Your task to perform on an android device: turn on priority inbox in the gmail app Image 0: 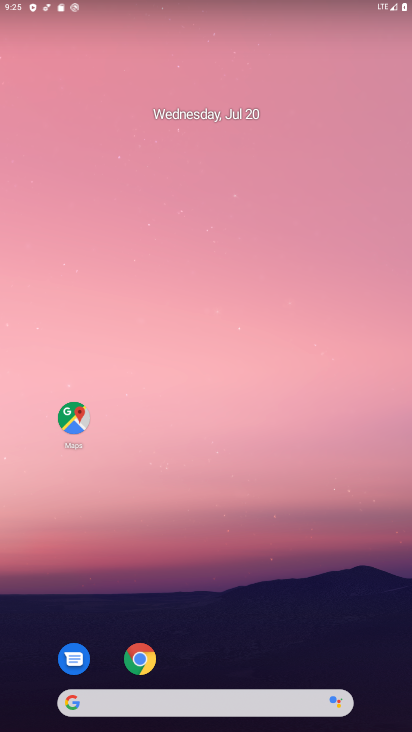
Step 0: drag from (243, 579) to (224, 58)
Your task to perform on an android device: turn on priority inbox in the gmail app Image 1: 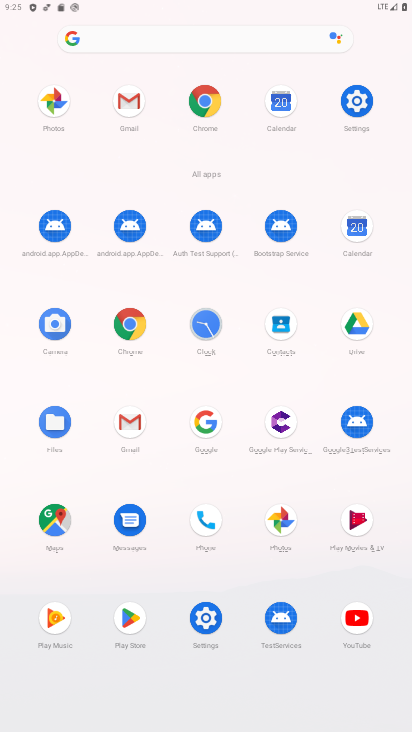
Step 1: click (129, 422)
Your task to perform on an android device: turn on priority inbox in the gmail app Image 2: 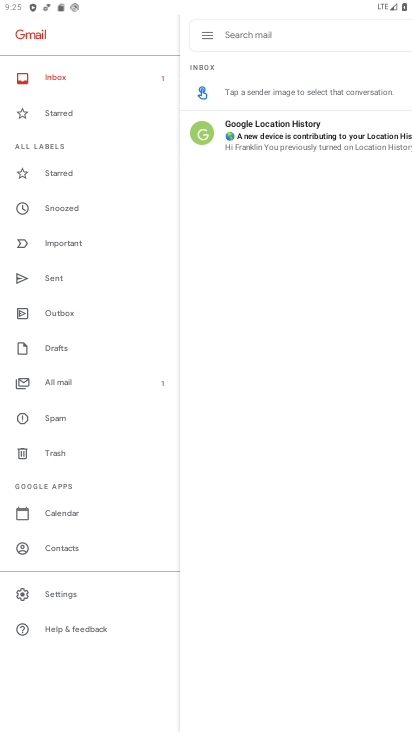
Step 2: click (56, 593)
Your task to perform on an android device: turn on priority inbox in the gmail app Image 3: 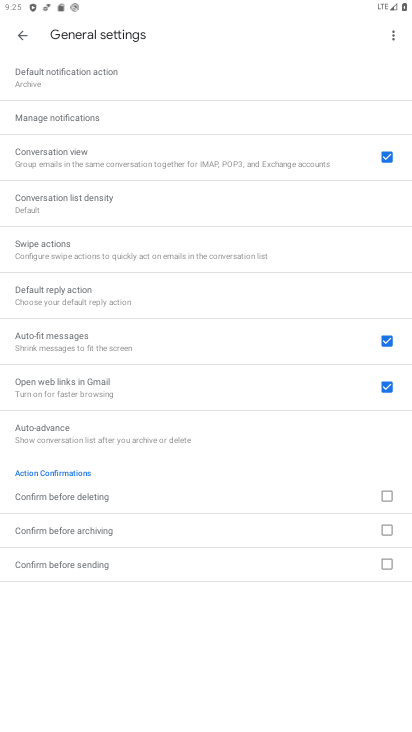
Step 3: click (21, 36)
Your task to perform on an android device: turn on priority inbox in the gmail app Image 4: 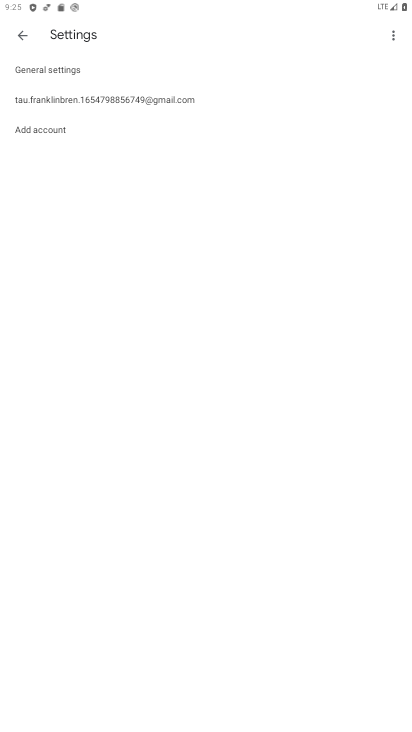
Step 4: click (46, 94)
Your task to perform on an android device: turn on priority inbox in the gmail app Image 5: 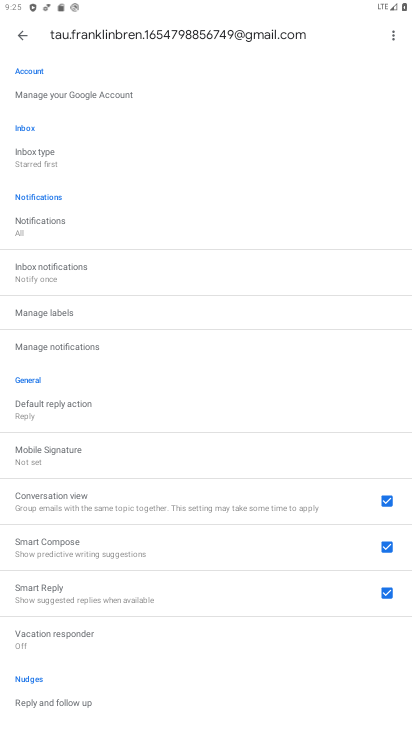
Step 5: click (44, 155)
Your task to perform on an android device: turn on priority inbox in the gmail app Image 6: 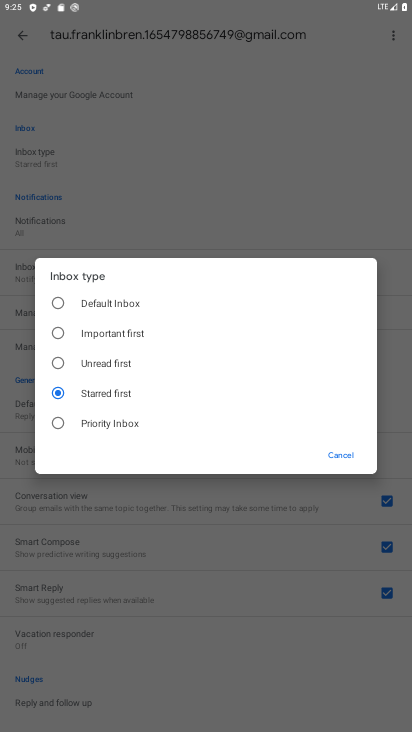
Step 6: click (58, 425)
Your task to perform on an android device: turn on priority inbox in the gmail app Image 7: 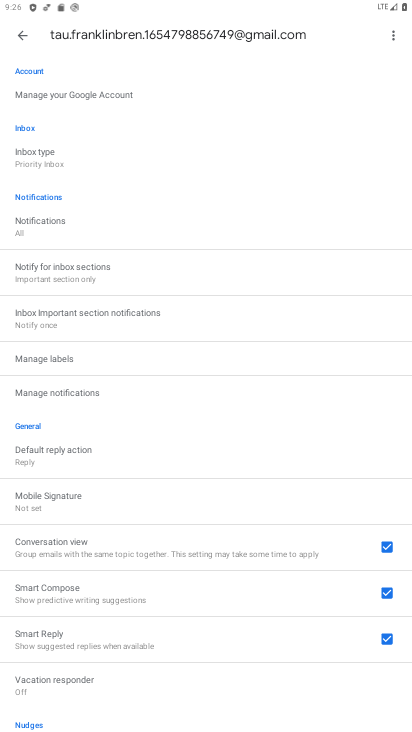
Step 7: task complete